Your task to perform on an android device: Open notification settings Image 0: 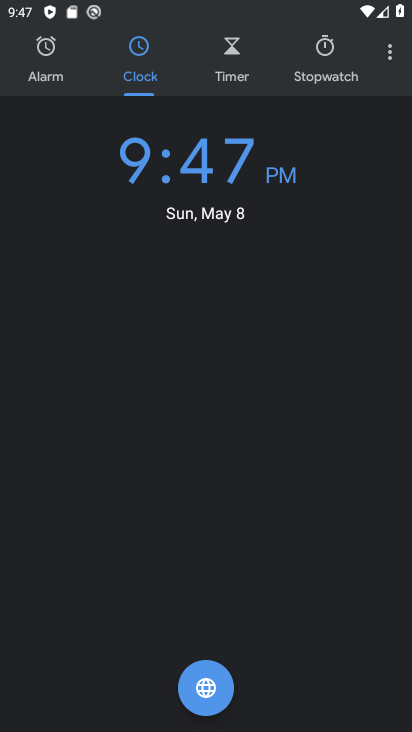
Step 0: press home button
Your task to perform on an android device: Open notification settings Image 1: 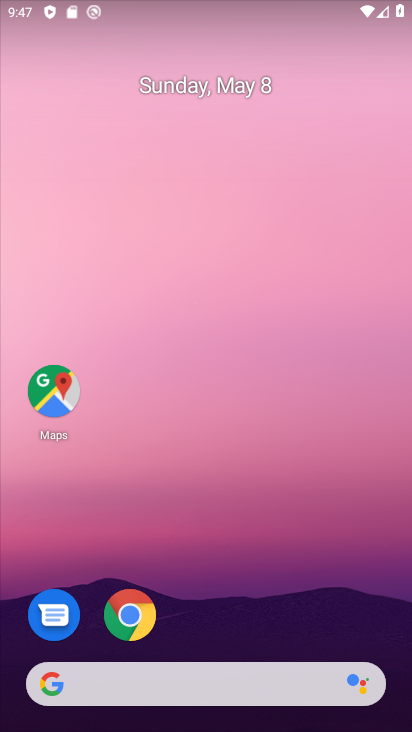
Step 1: drag from (307, 581) to (252, 60)
Your task to perform on an android device: Open notification settings Image 2: 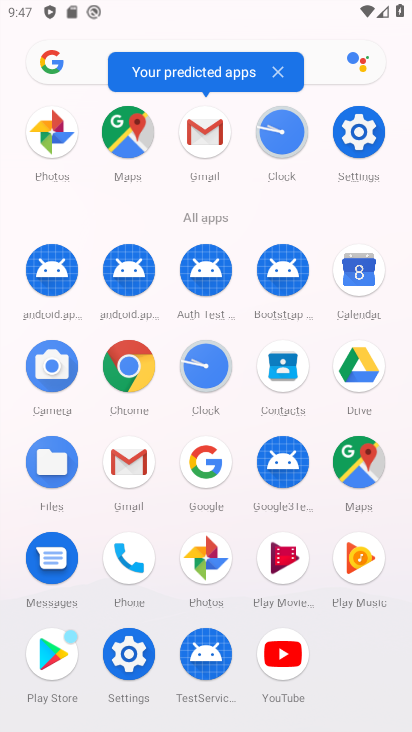
Step 2: click (368, 139)
Your task to perform on an android device: Open notification settings Image 3: 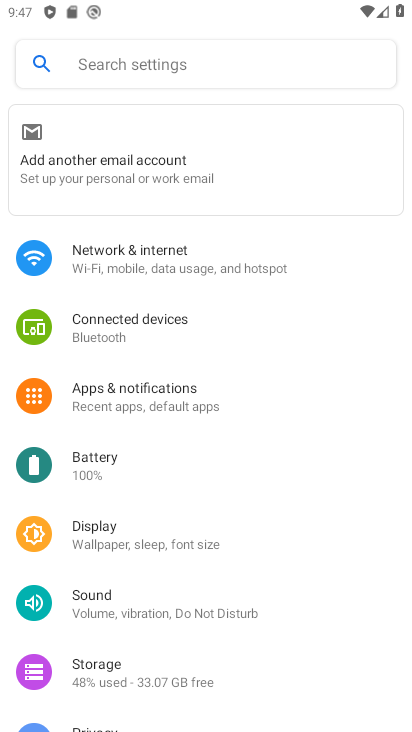
Step 3: drag from (207, 616) to (251, 196)
Your task to perform on an android device: Open notification settings Image 4: 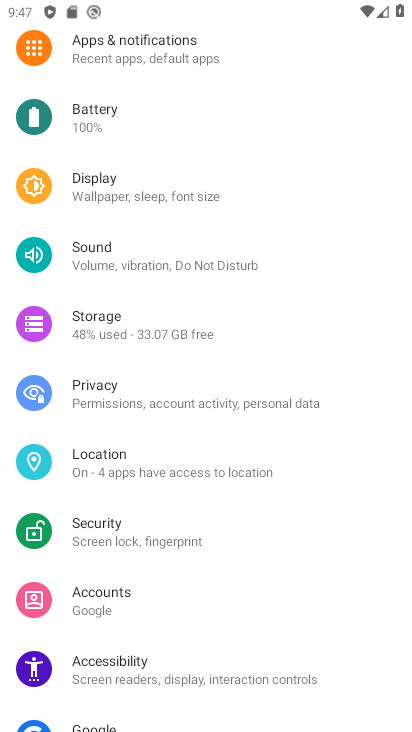
Step 4: click (146, 63)
Your task to perform on an android device: Open notification settings Image 5: 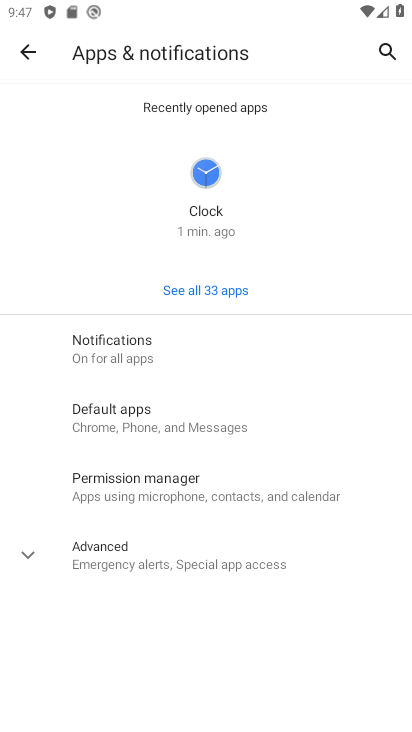
Step 5: click (213, 363)
Your task to perform on an android device: Open notification settings Image 6: 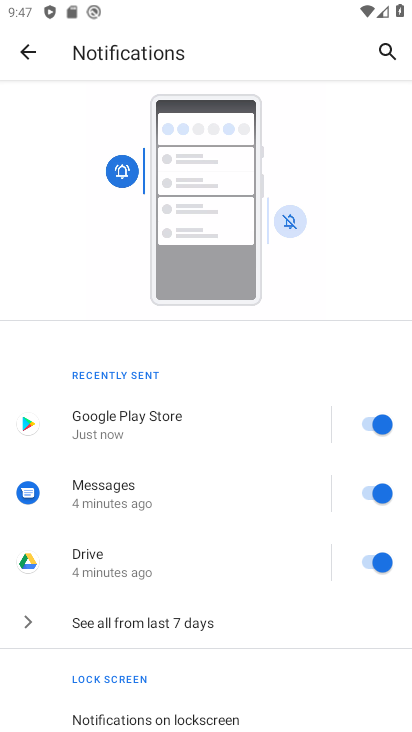
Step 6: task complete